Your task to perform on an android device: toggle wifi Image 0: 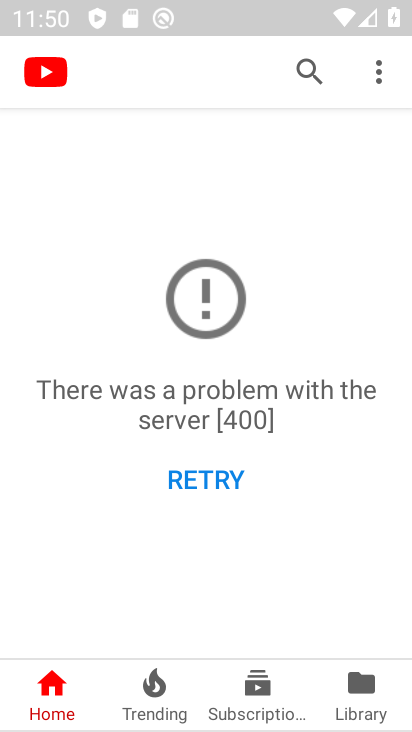
Step 0: drag from (277, 33) to (278, 721)
Your task to perform on an android device: toggle wifi Image 1: 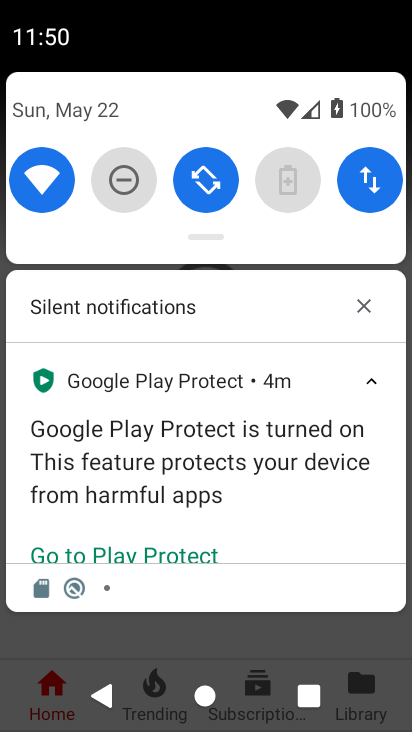
Step 1: drag from (173, 221) to (139, 686)
Your task to perform on an android device: toggle wifi Image 2: 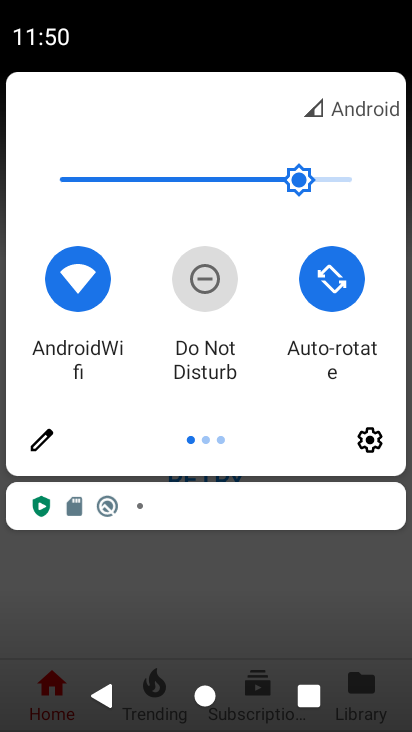
Step 2: drag from (330, 394) to (20, 432)
Your task to perform on an android device: toggle wifi Image 3: 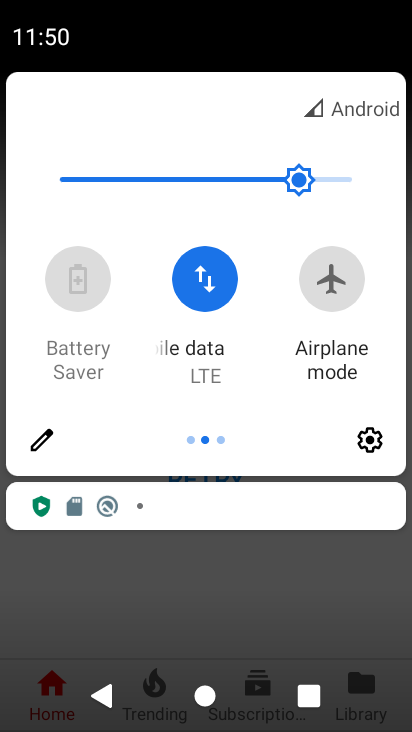
Step 3: drag from (292, 405) to (10, 416)
Your task to perform on an android device: toggle wifi Image 4: 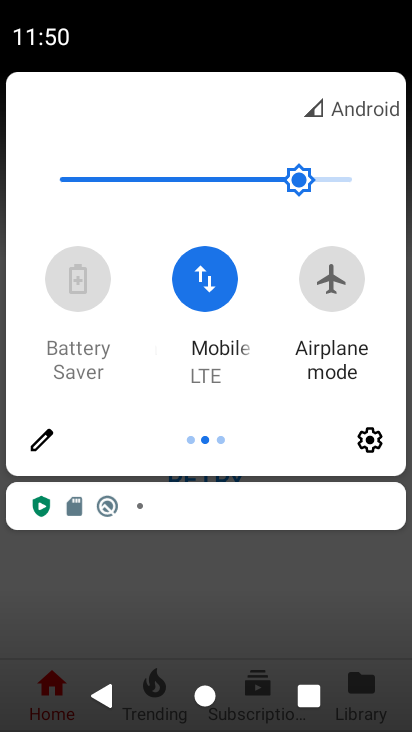
Step 4: drag from (124, 402) to (394, 367)
Your task to perform on an android device: toggle wifi Image 5: 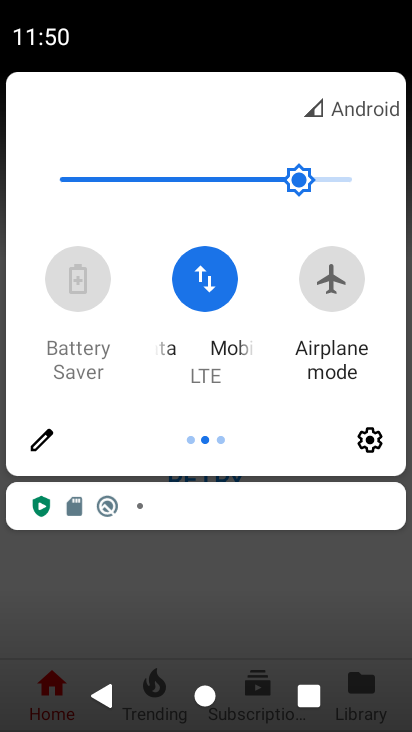
Step 5: drag from (61, 412) to (405, 429)
Your task to perform on an android device: toggle wifi Image 6: 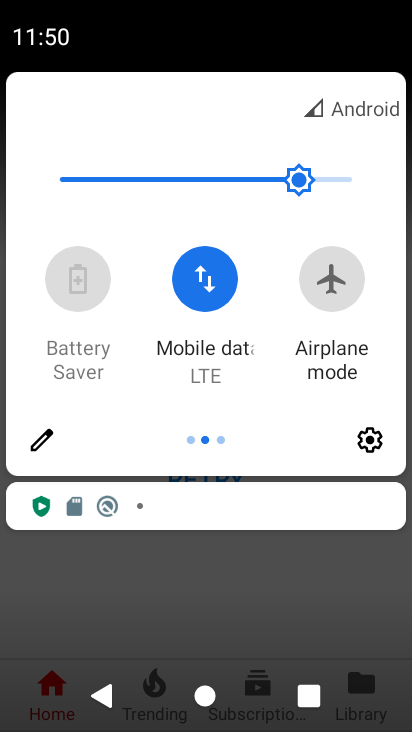
Step 6: drag from (25, 398) to (319, 409)
Your task to perform on an android device: toggle wifi Image 7: 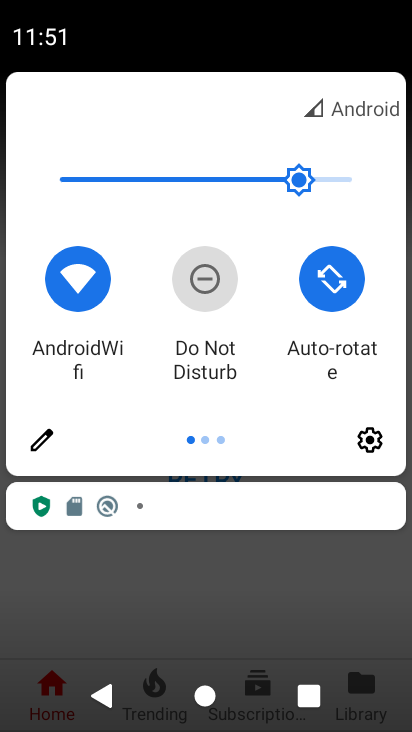
Step 7: click (79, 277)
Your task to perform on an android device: toggle wifi Image 8: 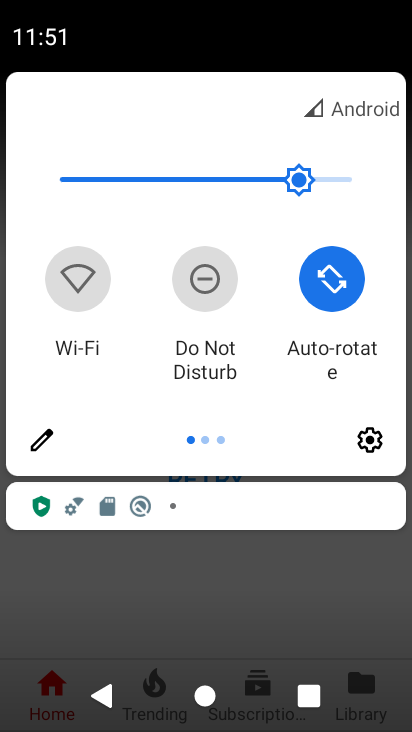
Step 8: task complete